Your task to perform on an android device: visit the assistant section in the google photos Image 0: 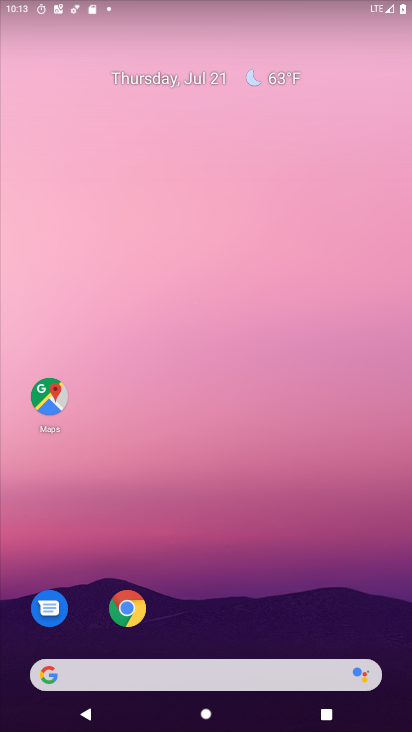
Step 0: drag from (211, 576) to (274, 246)
Your task to perform on an android device: visit the assistant section in the google photos Image 1: 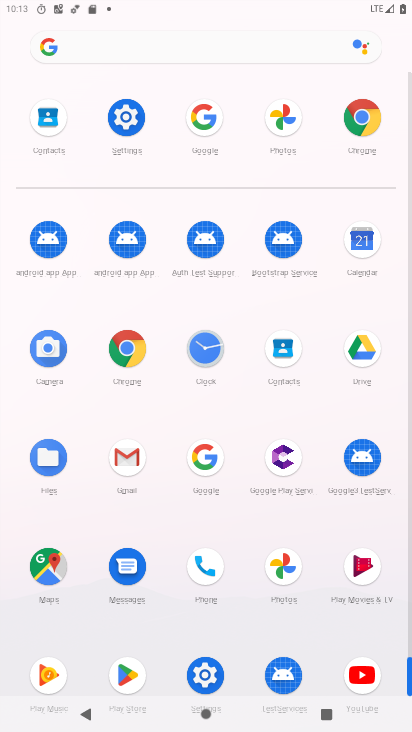
Step 1: click (279, 585)
Your task to perform on an android device: visit the assistant section in the google photos Image 2: 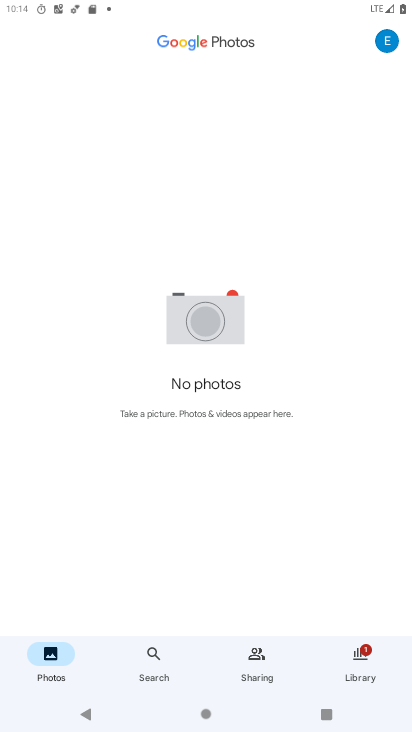
Step 2: click (388, 44)
Your task to perform on an android device: visit the assistant section in the google photos Image 3: 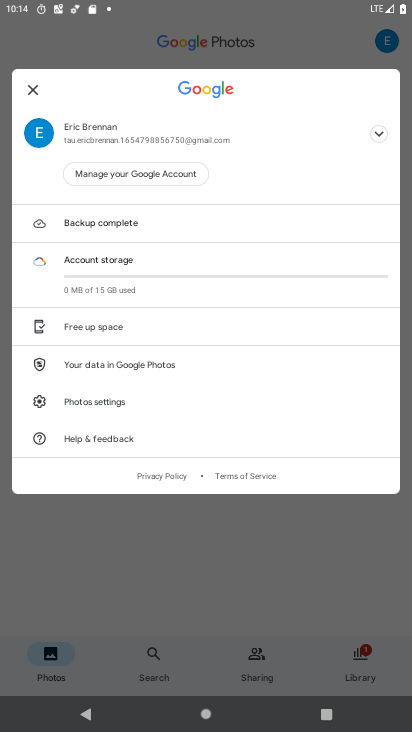
Step 3: task complete